Your task to perform on an android device: turn on data saver in the chrome app Image 0: 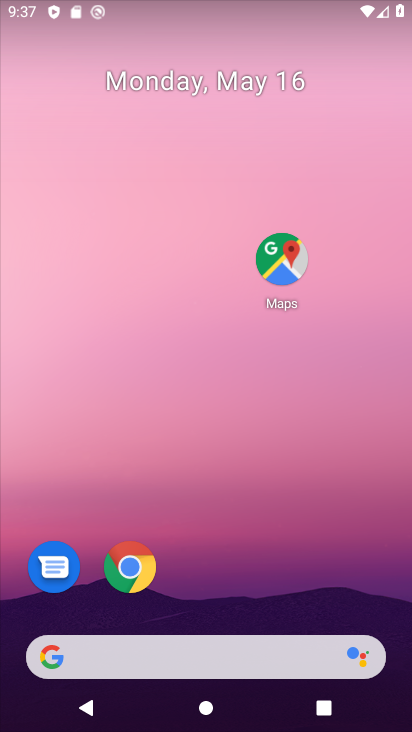
Step 0: click (132, 566)
Your task to perform on an android device: turn on data saver in the chrome app Image 1: 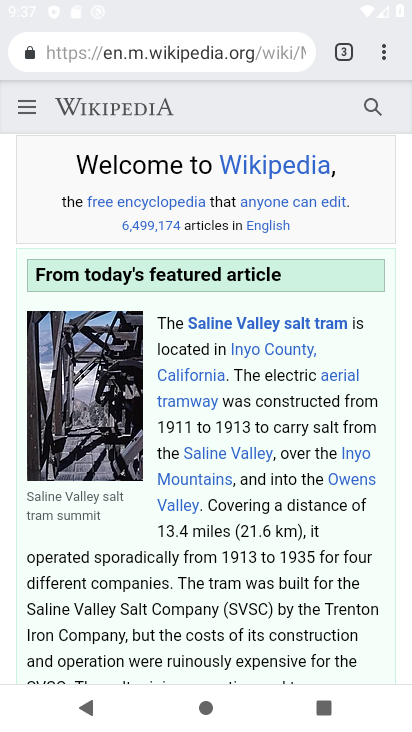
Step 1: click (383, 49)
Your task to perform on an android device: turn on data saver in the chrome app Image 2: 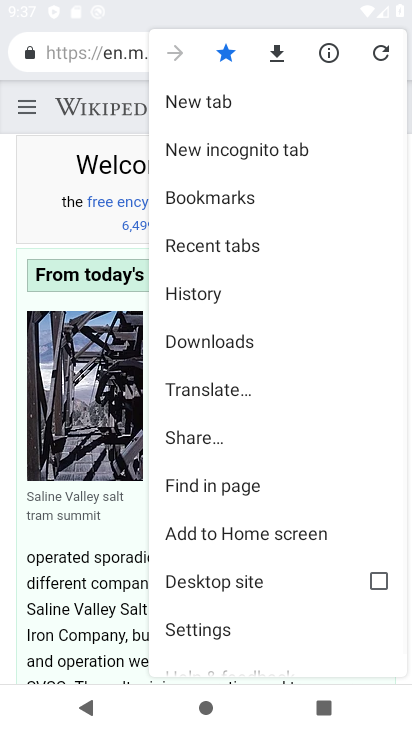
Step 2: click (201, 629)
Your task to perform on an android device: turn on data saver in the chrome app Image 3: 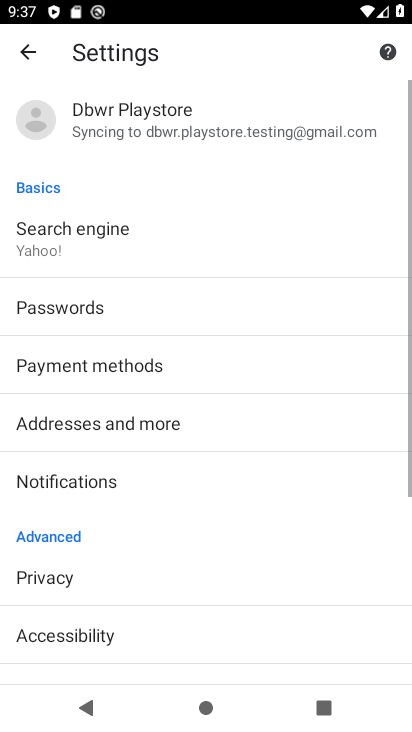
Step 3: drag from (202, 579) to (201, 233)
Your task to perform on an android device: turn on data saver in the chrome app Image 4: 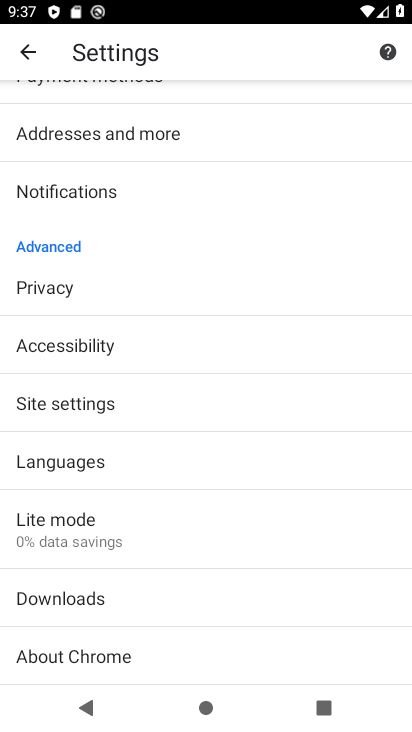
Step 4: drag from (180, 498) to (177, 269)
Your task to perform on an android device: turn on data saver in the chrome app Image 5: 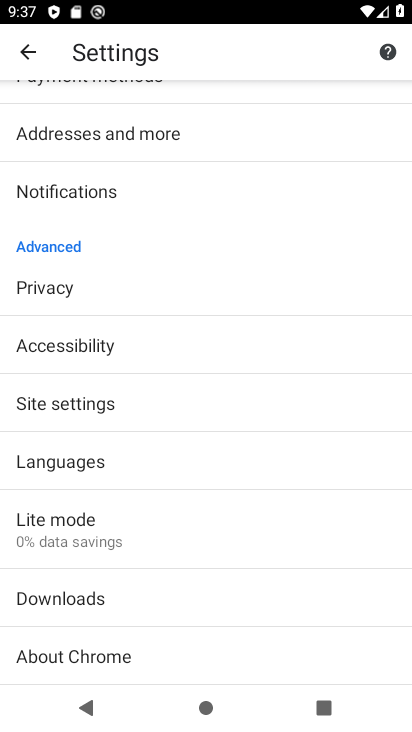
Step 5: drag from (206, 517) to (186, 263)
Your task to perform on an android device: turn on data saver in the chrome app Image 6: 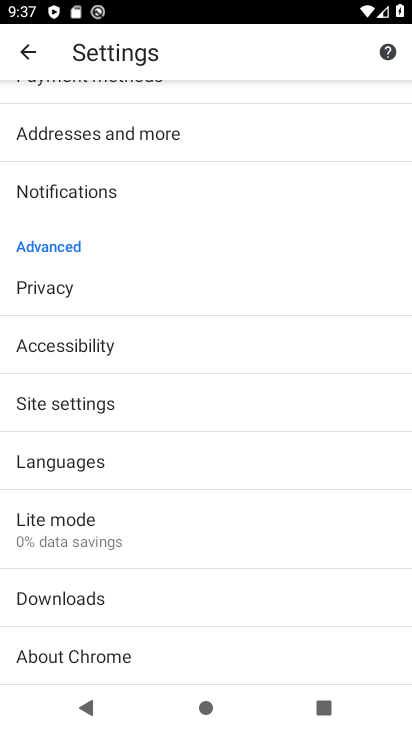
Step 6: click (89, 522)
Your task to perform on an android device: turn on data saver in the chrome app Image 7: 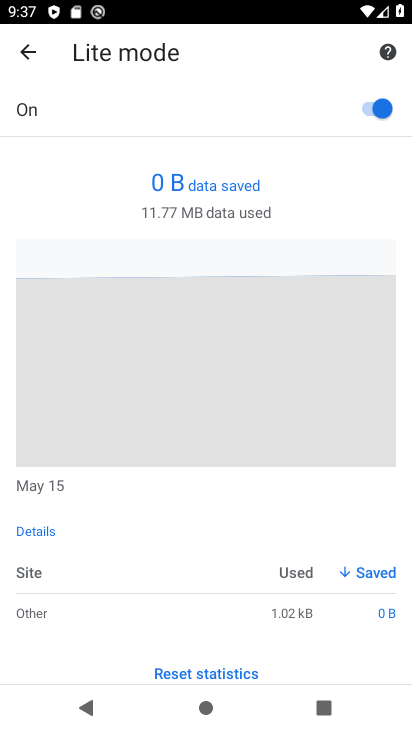
Step 7: task complete